Your task to perform on an android device: Open my contact list Image 0: 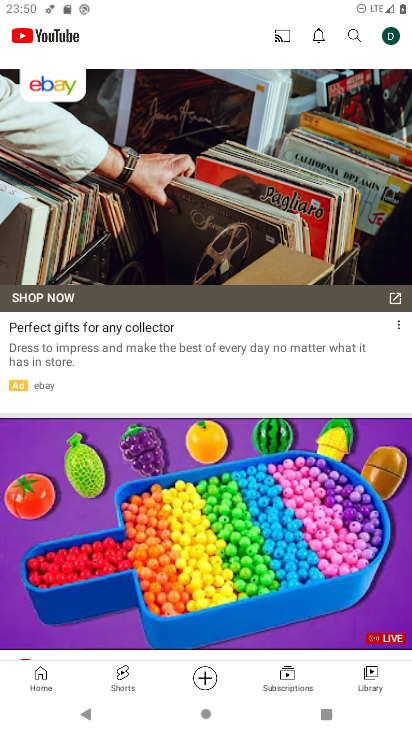
Step 0: press home button
Your task to perform on an android device: Open my contact list Image 1: 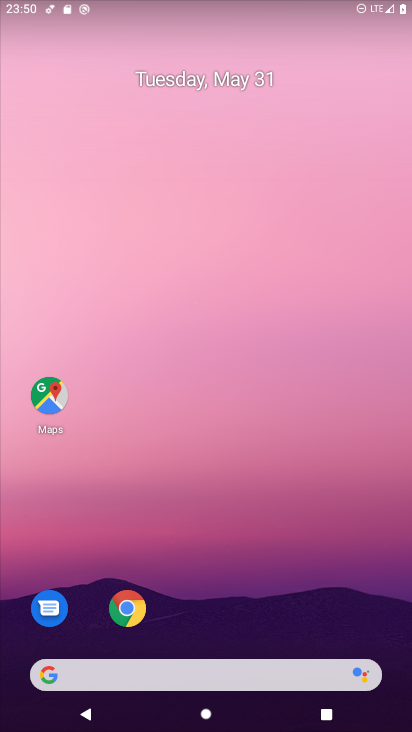
Step 1: drag from (383, 604) to (283, 6)
Your task to perform on an android device: Open my contact list Image 2: 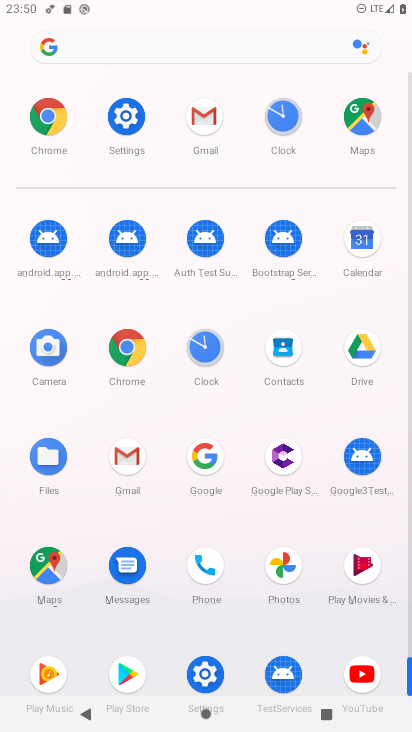
Step 2: click (296, 366)
Your task to perform on an android device: Open my contact list Image 3: 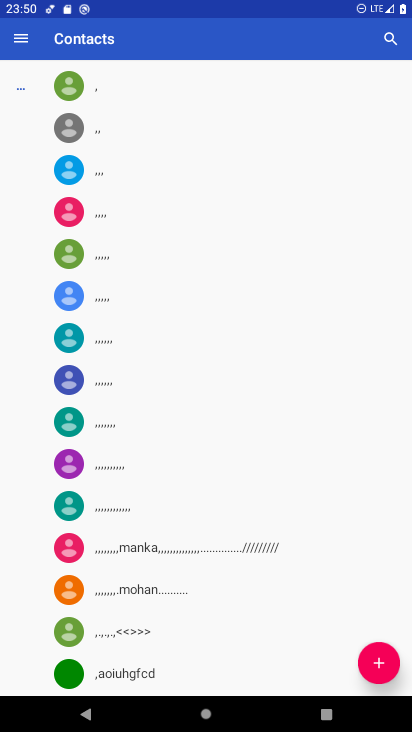
Step 3: task complete